Your task to perform on an android device: Show me popular games on the Play Store Image 0: 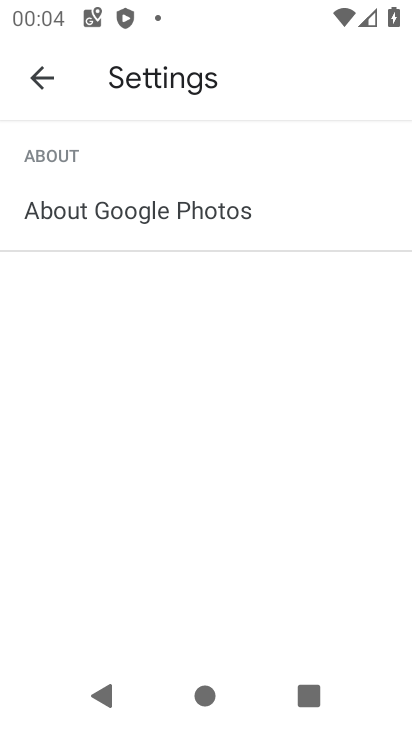
Step 0: click (263, 474)
Your task to perform on an android device: Show me popular games on the Play Store Image 1: 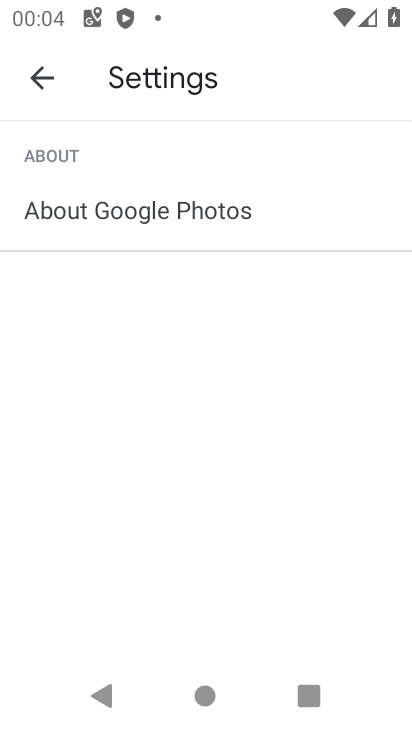
Step 1: press home button
Your task to perform on an android device: Show me popular games on the Play Store Image 2: 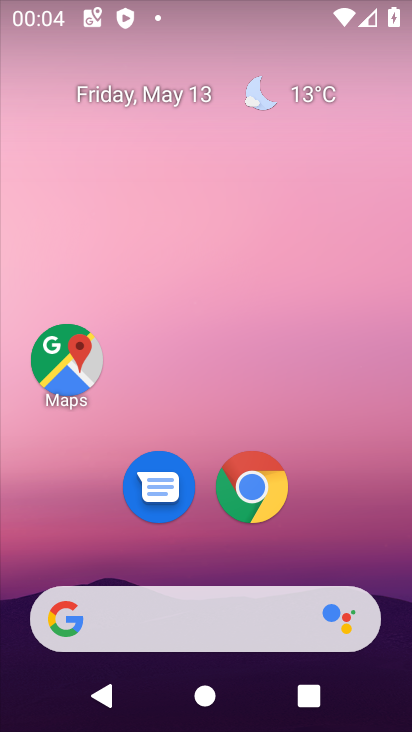
Step 2: drag from (213, 569) to (243, 130)
Your task to perform on an android device: Show me popular games on the Play Store Image 3: 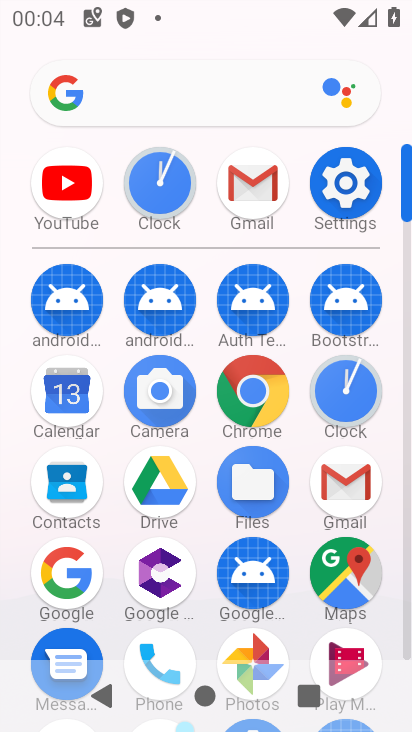
Step 3: drag from (203, 625) to (186, 367)
Your task to perform on an android device: Show me popular games on the Play Store Image 4: 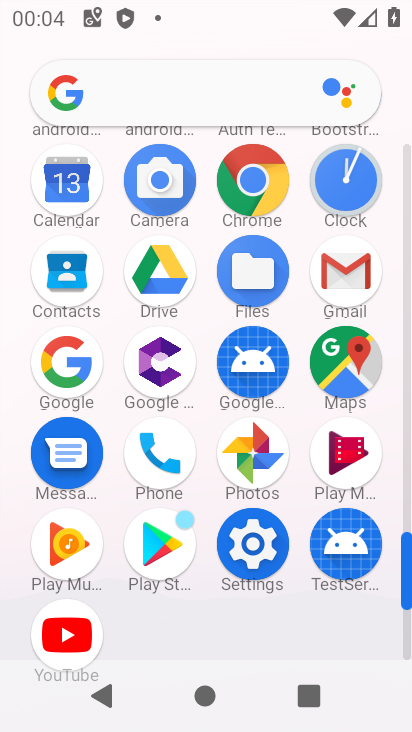
Step 4: click (155, 554)
Your task to perform on an android device: Show me popular games on the Play Store Image 5: 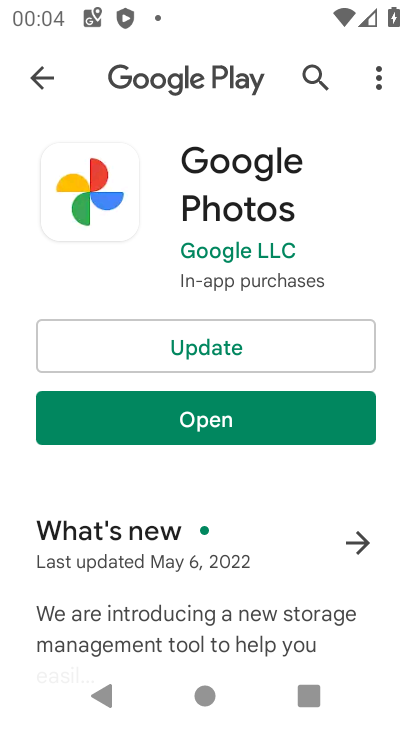
Step 5: click (39, 100)
Your task to perform on an android device: Show me popular games on the Play Store Image 6: 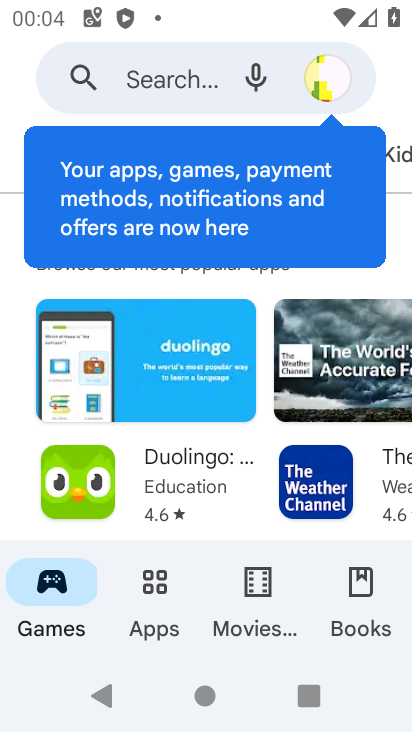
Step 6: click (205, 530)
Your task to perform on an android device: Show me popular games on the Play Store Image 7: 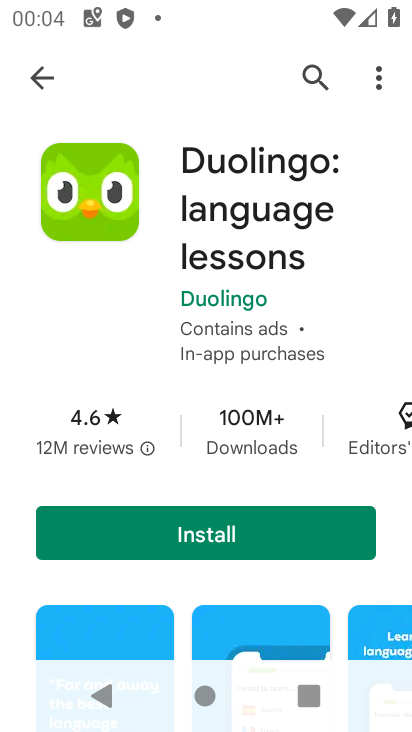
Step 7: click (38, 68)
Your task to perform on an android device: Show me popular games on the Play Store Image 8: 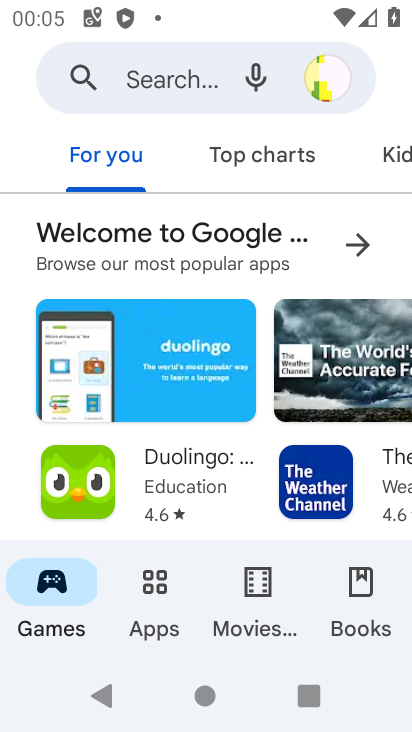
Step 8: click (267, 165)
Your task to perform on an android device: Show me popular games on the Play Store Image 9: 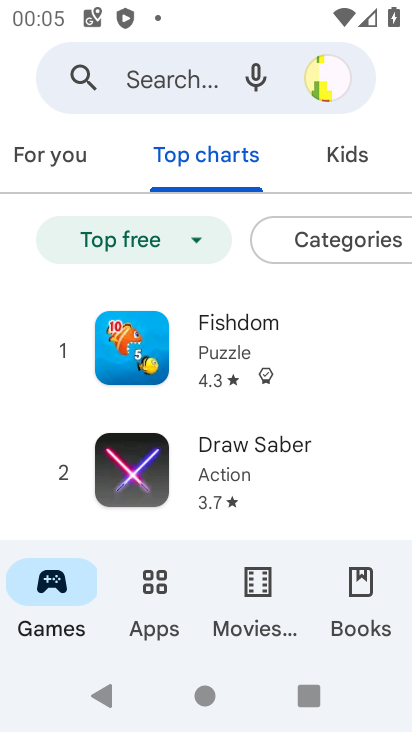
Step 9: task complete